Your task to perform on an android device: turn on priority inbox in the gmail app Image 0: 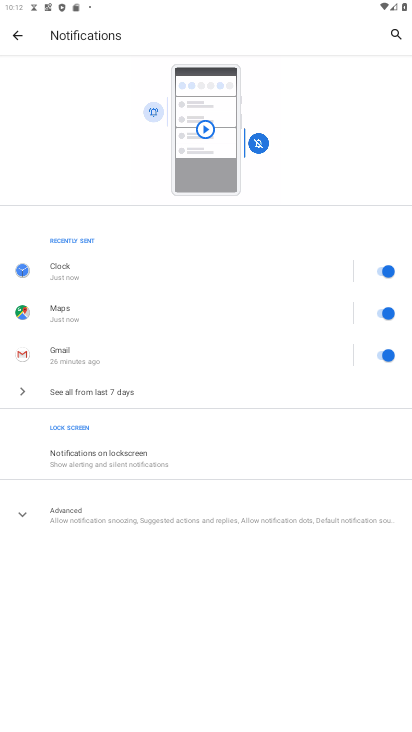
Step 0: press home button
Your task to perform on an android device: turn on priority inbox in the gmail app Image 1: 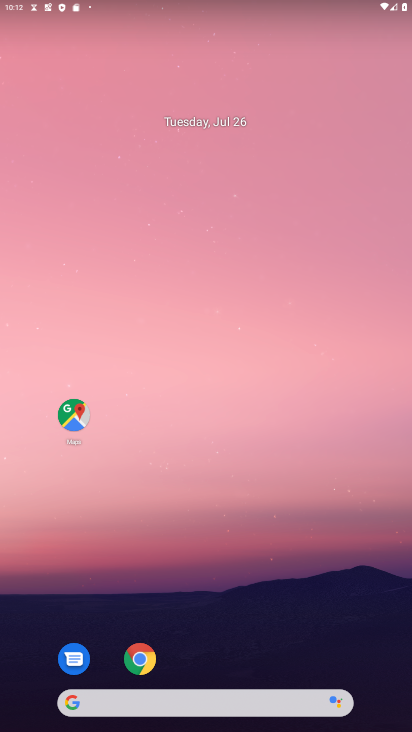
Step 1: drag from (386, 707) to (316, 36)
Your task to perform on an android device: turn on priority inbox in the gmail app Image 2: 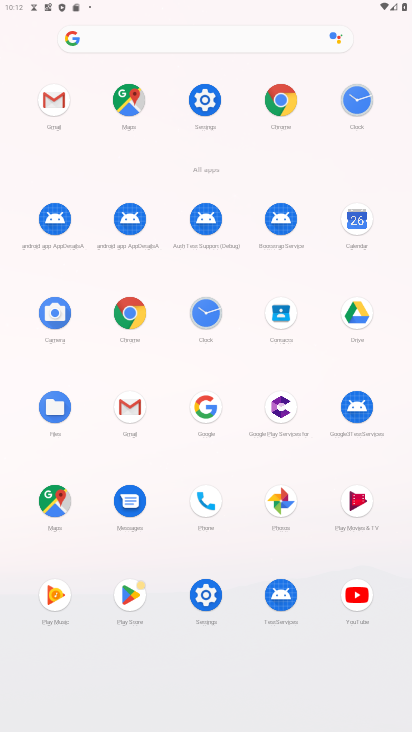
Step 2: click (137, 418)
Your task to perform on an android device: turn on priority inbox in the gmail app Image 3: 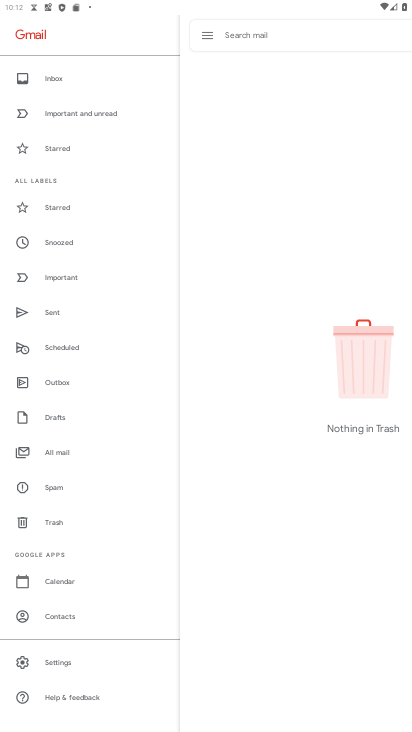
Step 3: click (46, 653)
Your task to perform on an android device: turn on priority inbox in the gmail app Image 4: 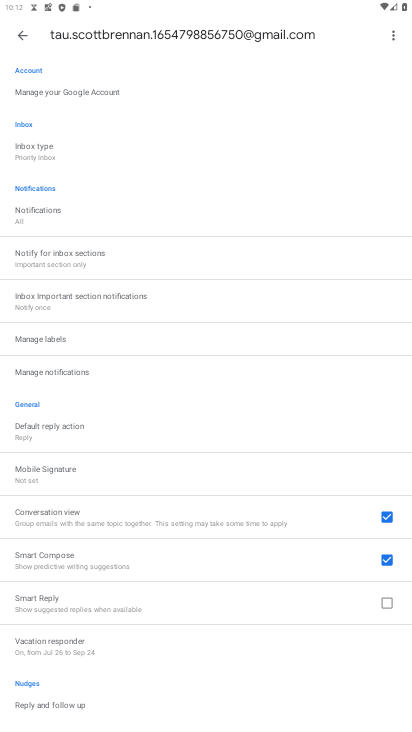
Step 4: click (32, 155)
Your task to perform on an android device: turn on priority inbox in the gmail app Image 5: 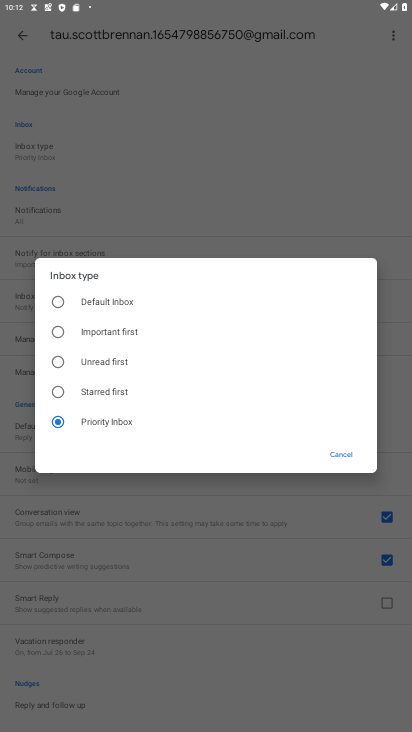
Step 5: task complete